Your task to perform on an android device: Open Google Maps Image 0: 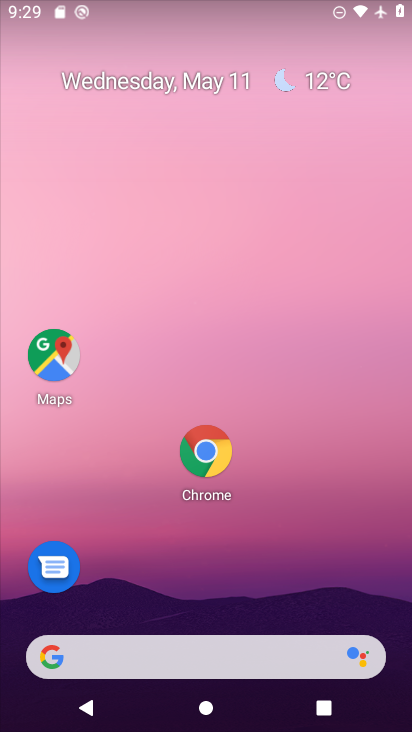
Step 0: click (55, 358)
Your task to perform on an android device: Open Google Maps Image 1: 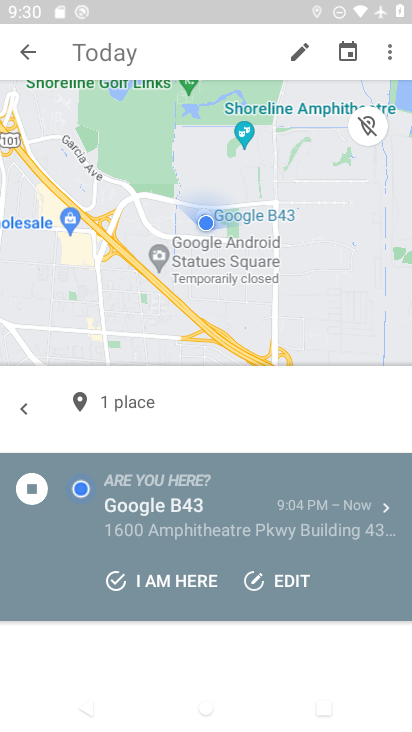
Step 1: task complete